Your task to perform on an android device: Search for sushi restaurants on Maps Image 0: 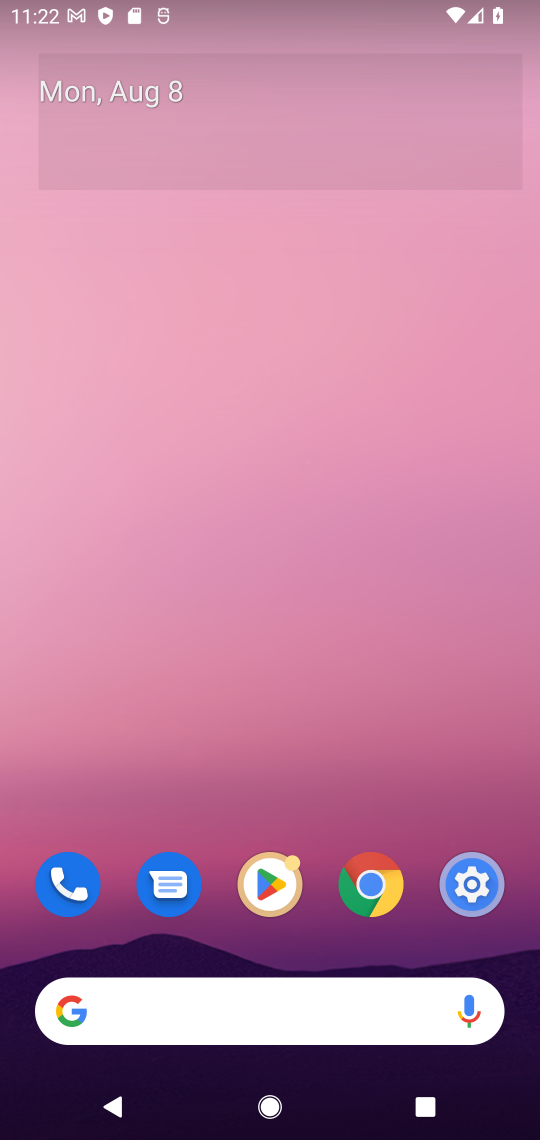
Step 0: drag from (214, 955) to (223, 109)
Your task to perform on an android device: Search for sushi restaurants on Maps Image 1: 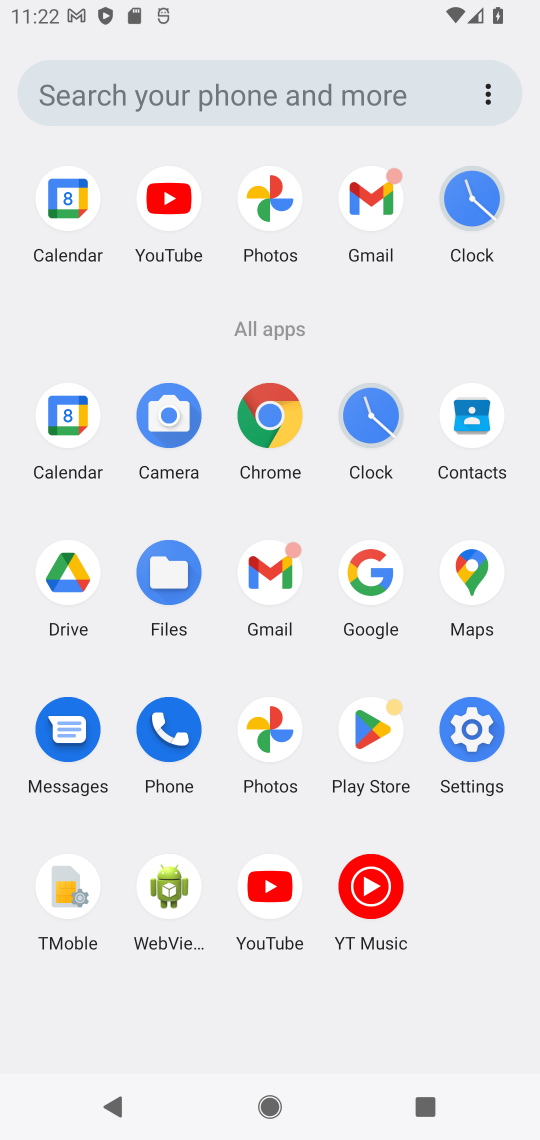
Step 1: click (473, 590)
Your task to perform on an android device: Search for sushi restaurants on Maps Image 2: 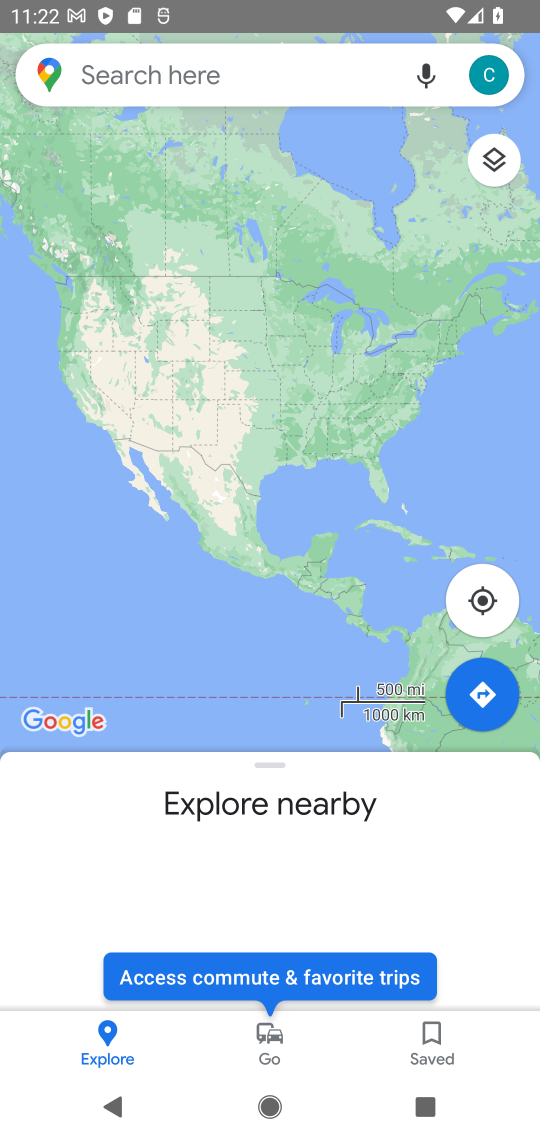
Step 2: click (237, 66)
Your task to perform on an android device: Search for sushi restaurants on Maps Image 3: 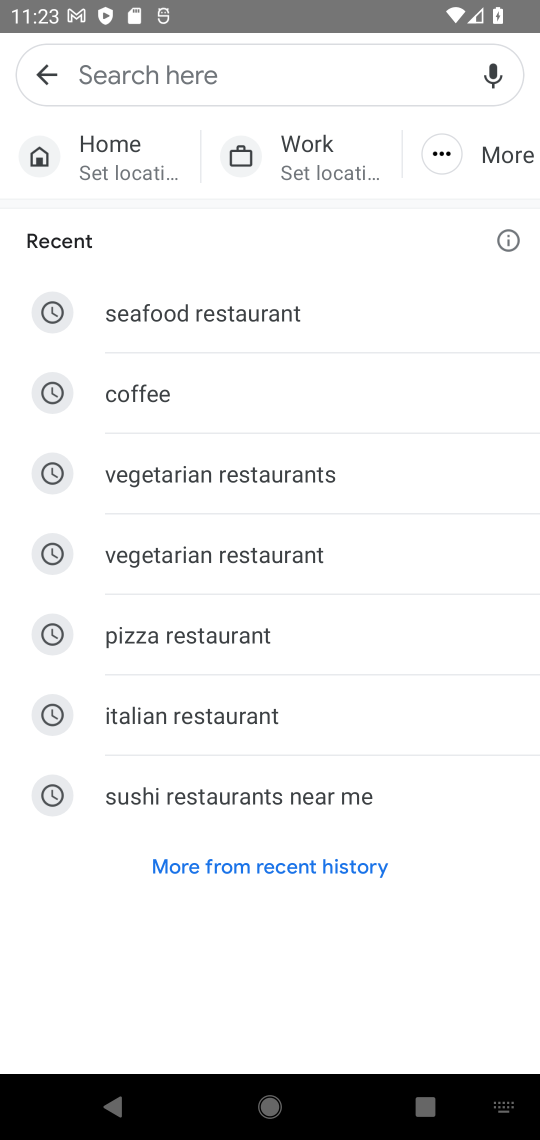
Step 3: type "sushi restaurants"
Your task to perform on an android device: Search for sushi restaurants on Maps Image 4: 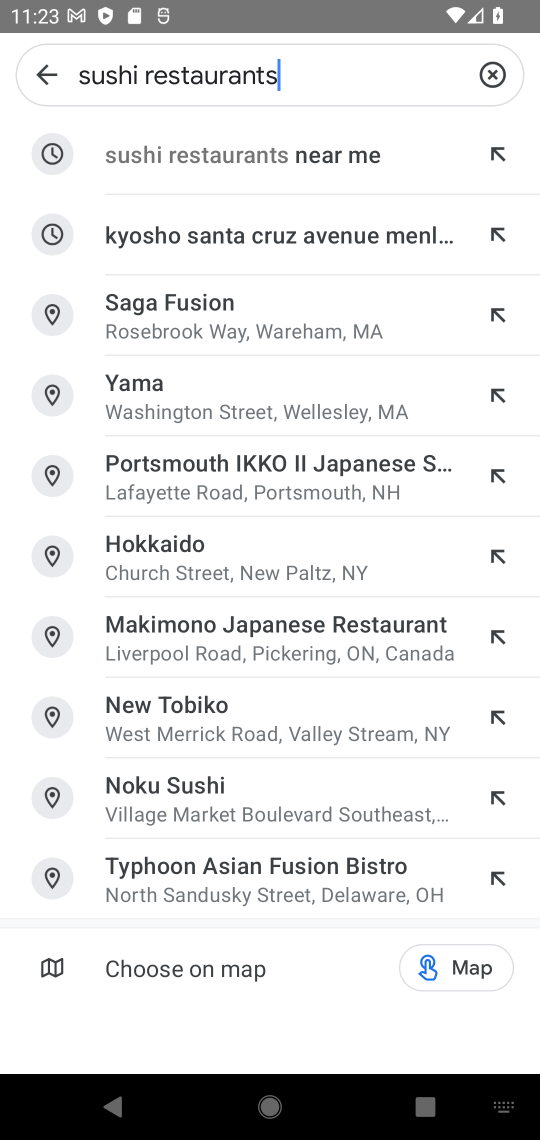
Step 4: click (212, 165)
Your task to perform on an android device: Search for sushi restaurants on Maps Image 5: 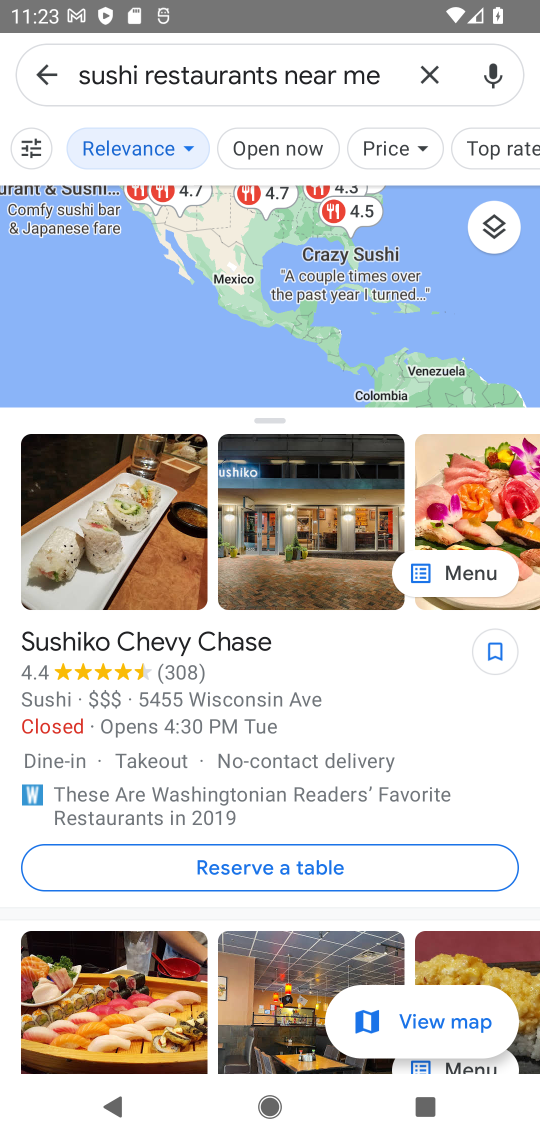
Step 5: task complete